Your task to perform on an android device: turn notification dots on Image 0: 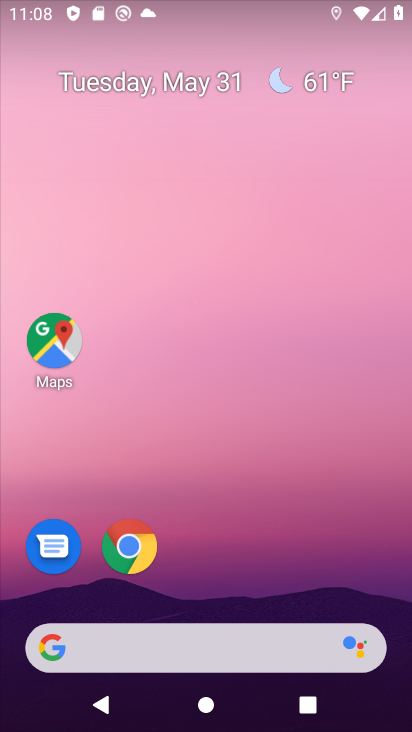
Step 0: drag from (202, 599) to (388, 361)
Your task to perform on an android device: turn notification dots on Image 1: 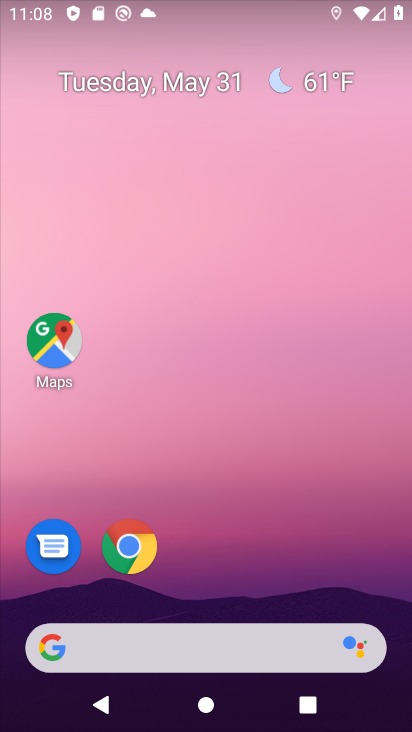
Step 1: drag from (219, 612) to (198, 7)
Your task to perform on an android device: turn notification dots on Image 2: 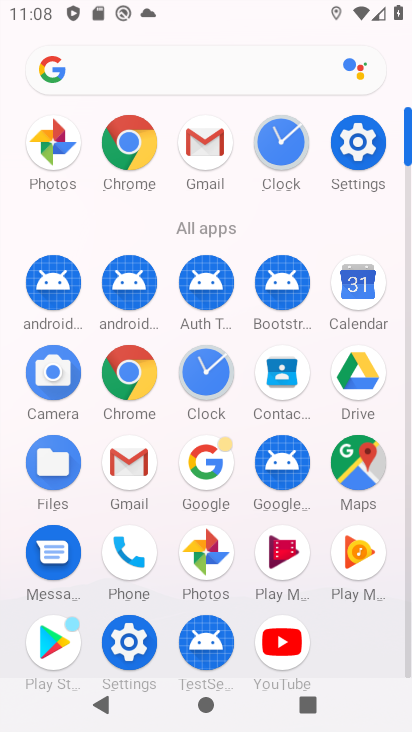
Step 2: click (136, 622)
Your task to perform on an android device: turn notification dots on Image 3: 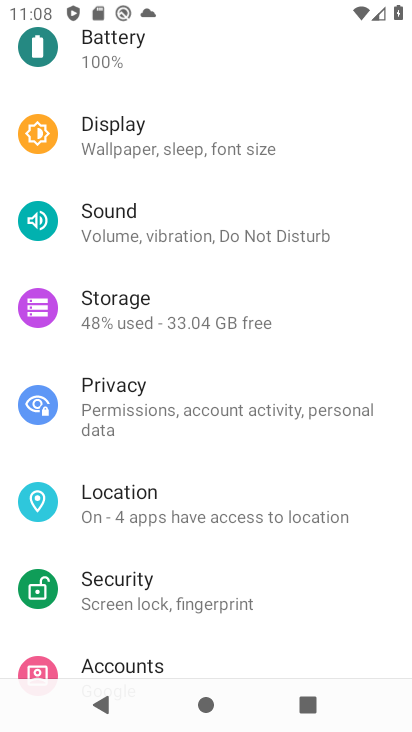
Step 3: drag from (177, 275) to (178, 638)
Your task to perform on an android device: turn notification dots on Image 4: 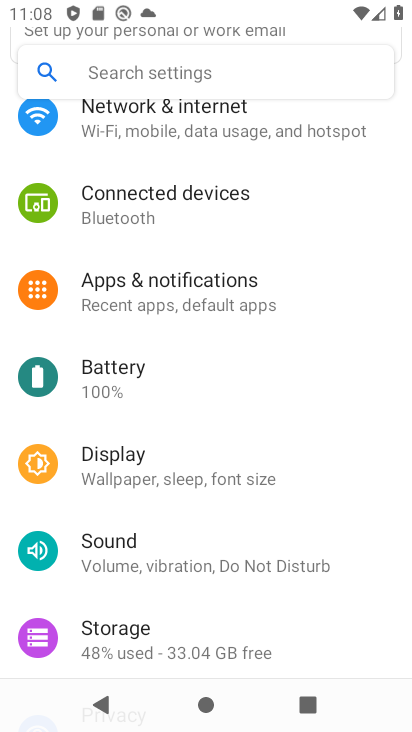
Step 4: click (182, 297)
Your task to perform on an android device: turn notification dots on Image 5: 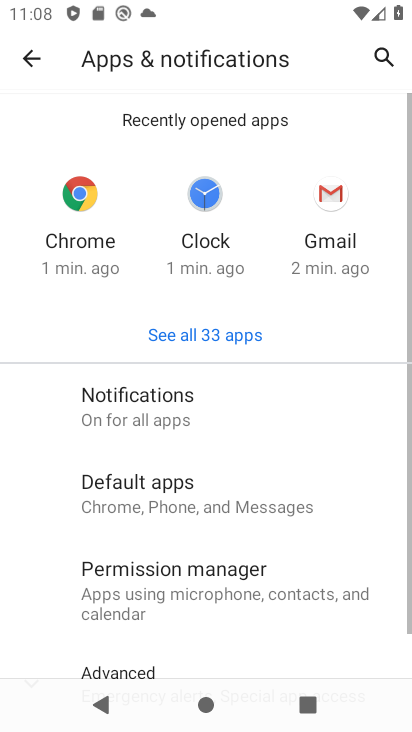
Step 5: drag from (237, 663) to (162, 88)
Your task to perform on an android device: turn notification dots on Image 6: 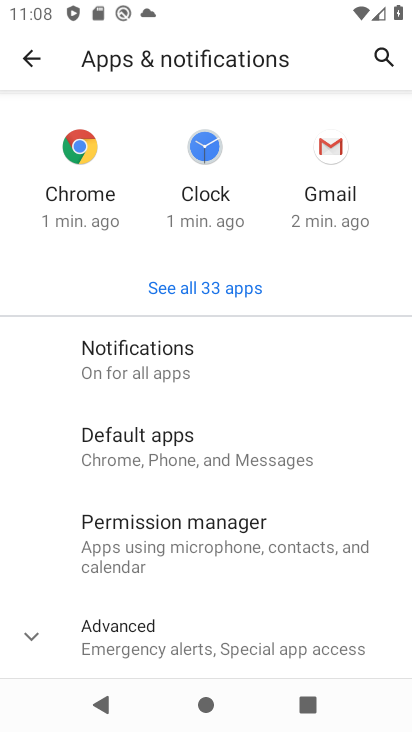
Step 6: click (158, 675)
Your task to perform on an android device: turn notification dots on Image 7: 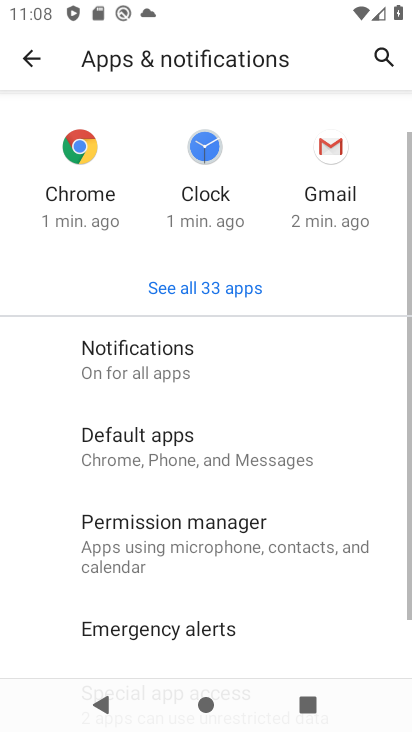
Step 7: drag from (186, 634) to (139, 41)
Your task to perform on an android device: turn notification dots on Image 8: 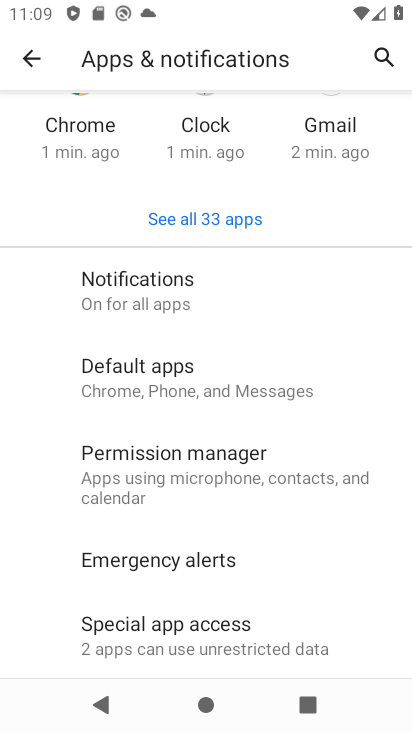
Step 8: click (217, 306)
Your task to perform on an android device: turn notification dots on Image 9: 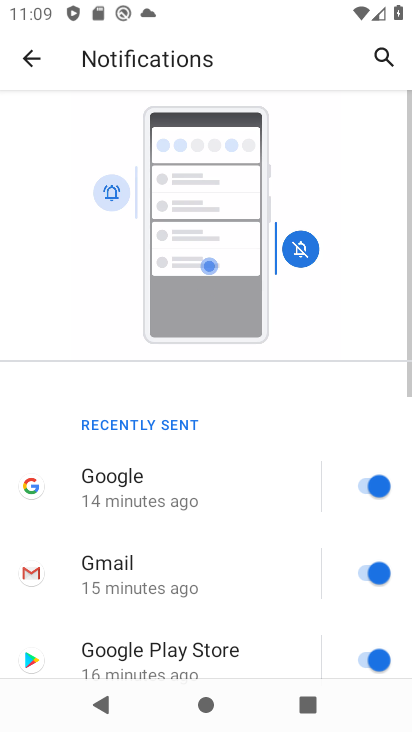
Step 9: drag from (237, 503) to (288, 6)
Your task to perform on an android device: turn notification dots on Image 10: 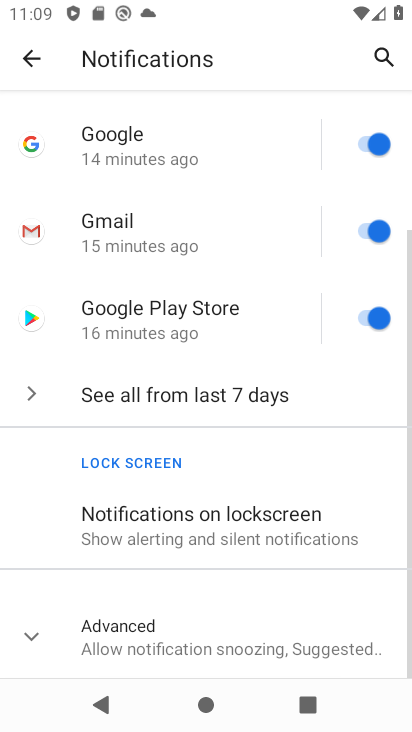
Step 10: click (227, 610)
Your task to perform on an android device: turn notification dots on Image 11: 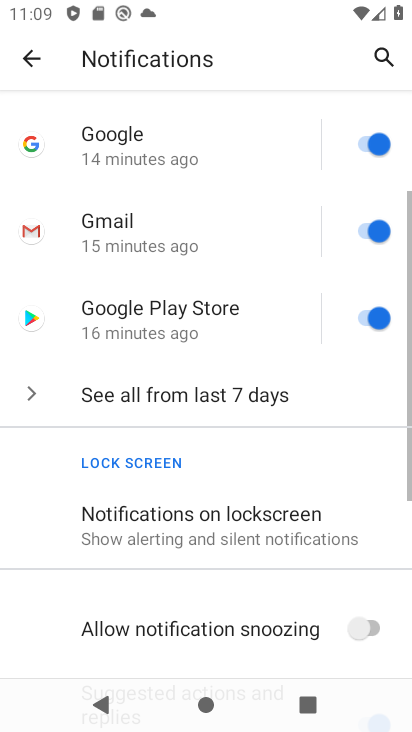
Step 11: task complete